Your task to perform on an android device: turn off airplane mode Image 0: 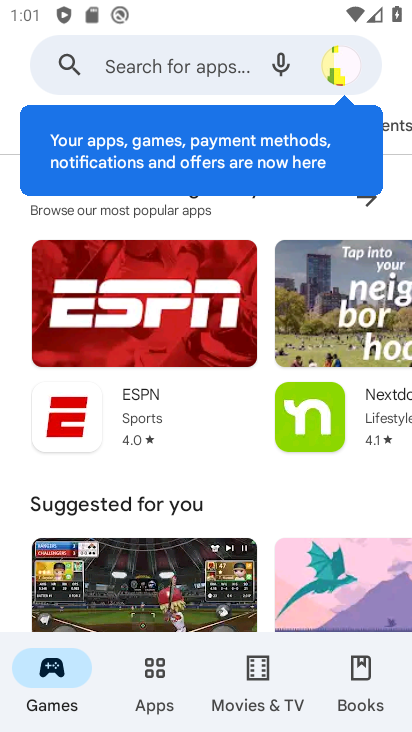
Step 0: press home button
Your task to perform on an android device: turn off airplane mode Image 1: 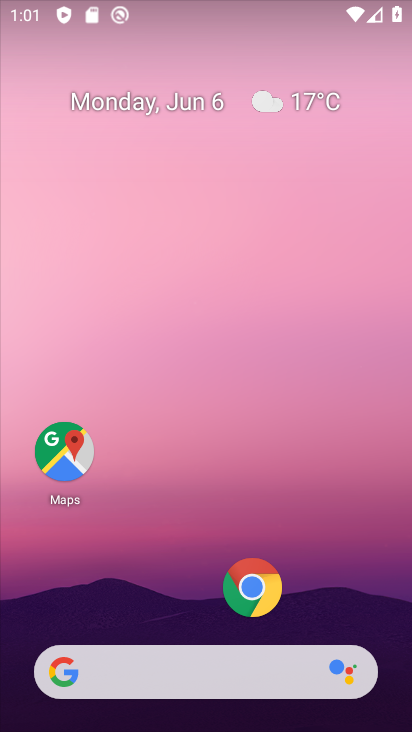
Step 1: drag from (174, 606) to (177, 291)
Your task to perform on an android device: turn off airplane mode Image 2: 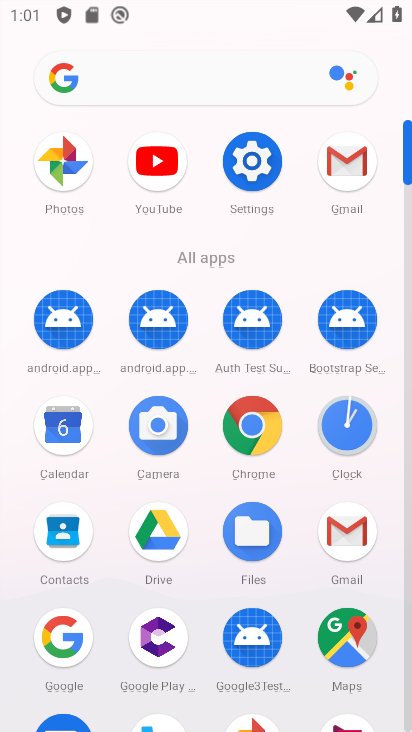
Step 2: click (249, 163)
Your task to perform on an android device: turn off airplane mode Image 3: 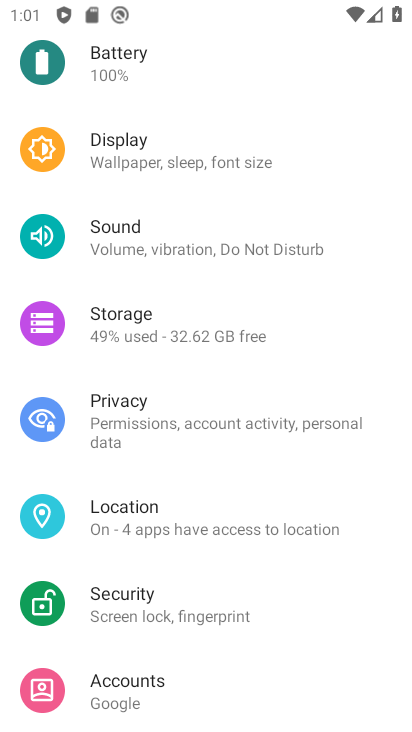
Step 3: click (187, 607)
Your task to perform on an android device: turn off airplane mode Image 4: 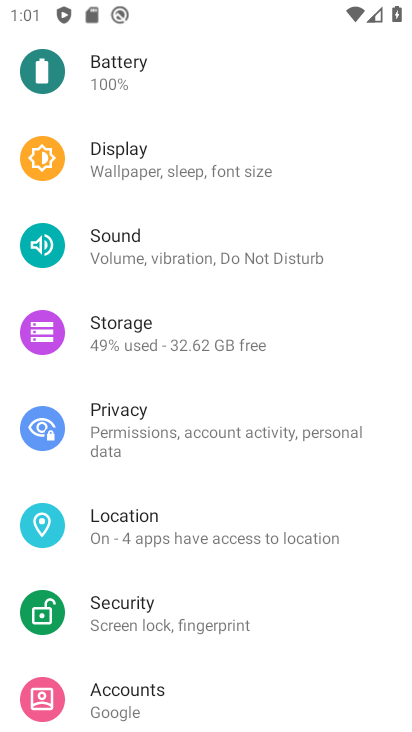
Step 4: drag from (205, 93) to (179, 491)
Your task to perform on an android device: turn off airplane mode Image 5: 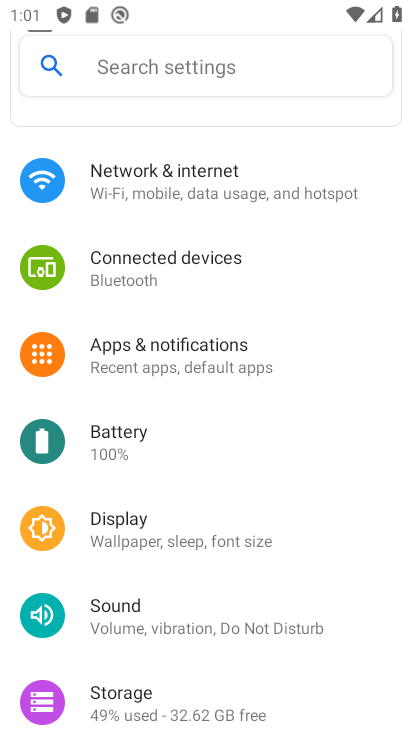
Step 5: click (183, 193)
Your task to perform on an android device: turn off airplane mode Image 6: 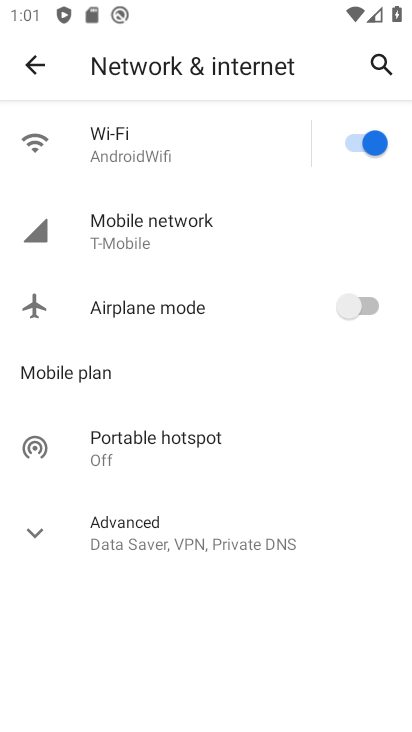
Step 6: task complete